Your task to perform on an android device: see sites visited before in the chrome app Image 0: 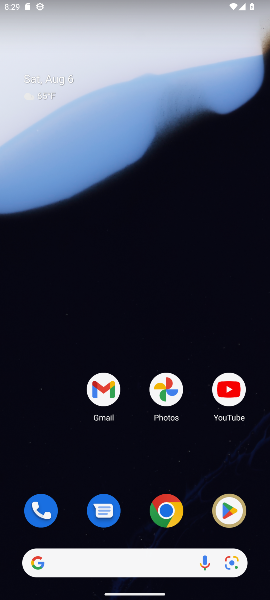
Step 0: press home button
Your task to perform on an android device: see sites visited before in the chrome app Image 1: 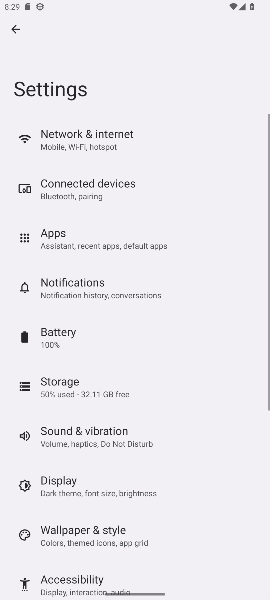
Step 1: drag from (81, 459) to (64, 232)
Your task to perform on an android device: see sites visited before in the chrome app Image 2: 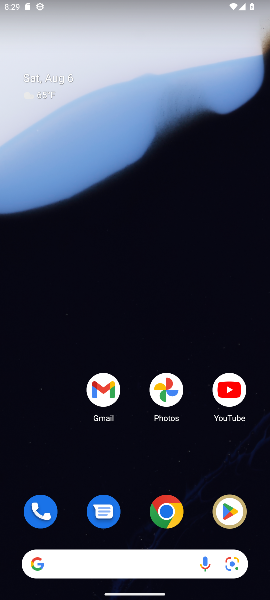
Step 2: click (169, 514)
Your task to perform on an android device: see sites visited before in the chrome app Image 3: 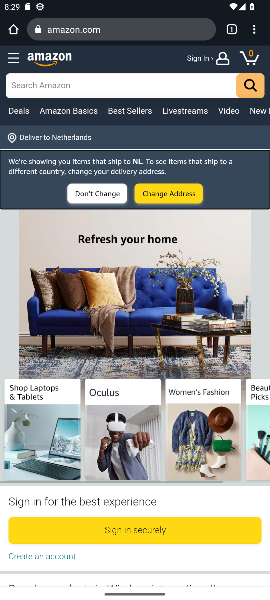
Step 3: task complete